Your task to perform on an android device: check battery use Image 0: 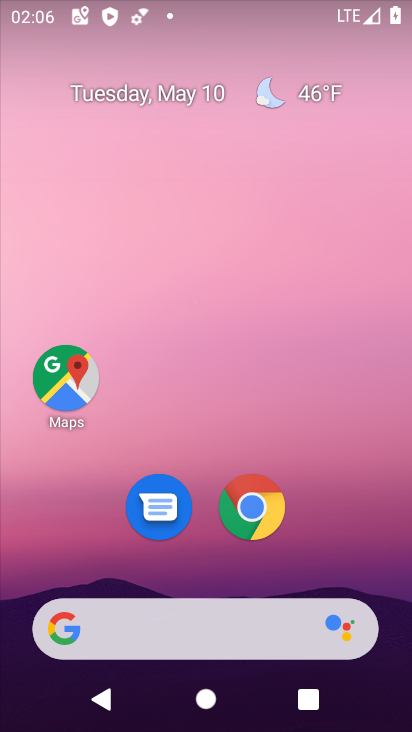
Step 0: drag from (224, 658) to (261, 192)
Your task to perform on an android device: check battery use Image 1: 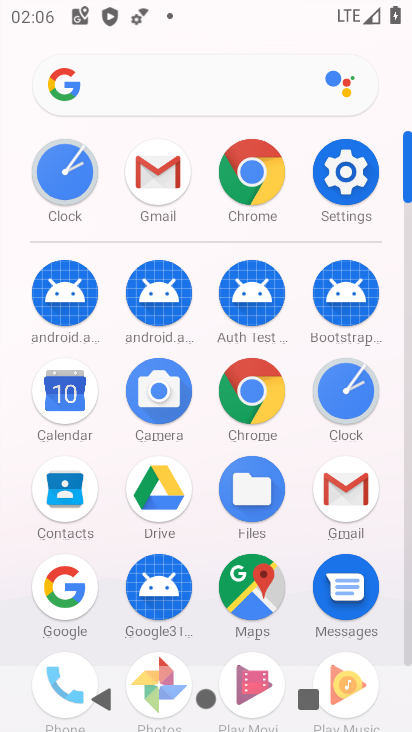
Step 1: click (352, 171)
Your task to perform on an android device: check battery use Image 2: 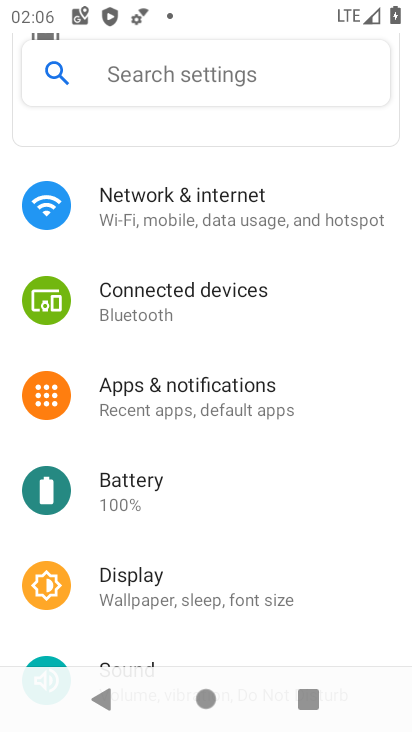
Step 2: click (145, 503)
Your task to perform on an android device: check battery use Image 3: 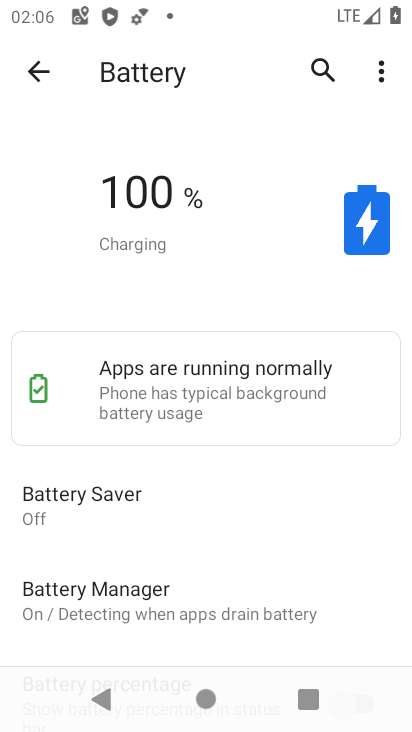
Step 3: task complete